Your task to perform on an android device: Open maps Image 0: 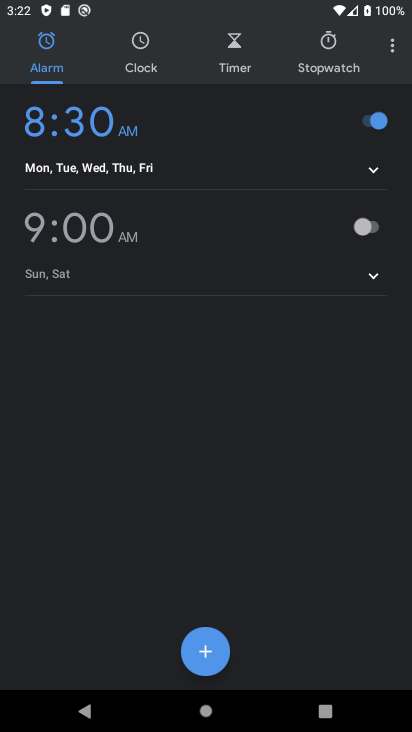
Step 0: press home button
Your task to perform on an android device: Open maps Image 1: 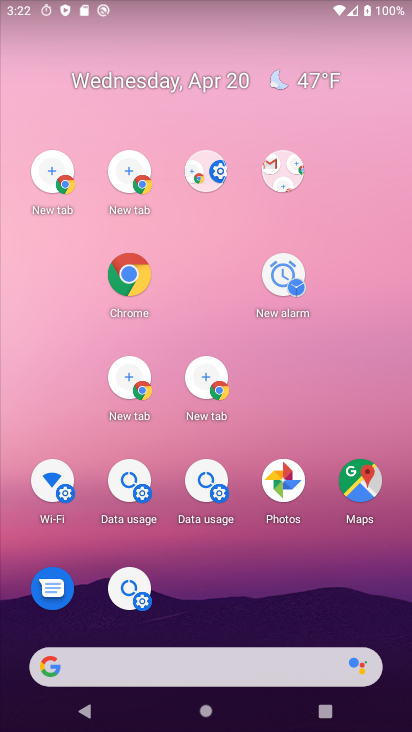
Step 1: click (367, 478)
Your task to perform on an android device: Open maps Image 2: 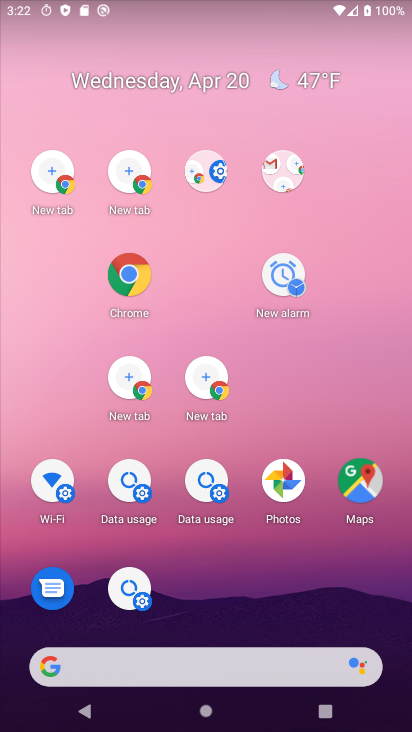
Step 2: click (367, 478)
Your task to perform on an android device: Open maps Image 3: 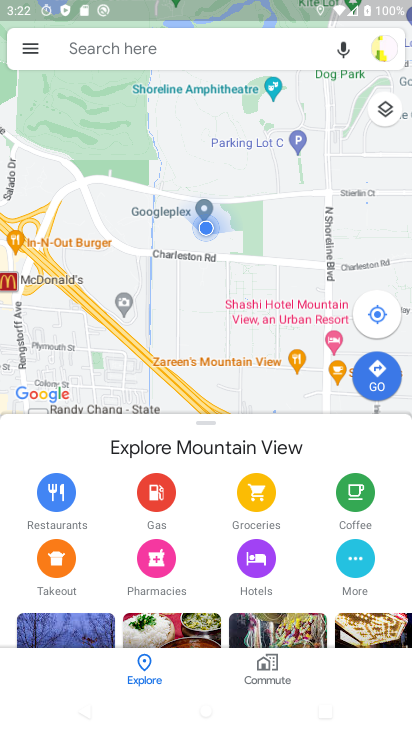
Step 3: task complete